Your task to perform on an android device: Open battery settings Image 0: 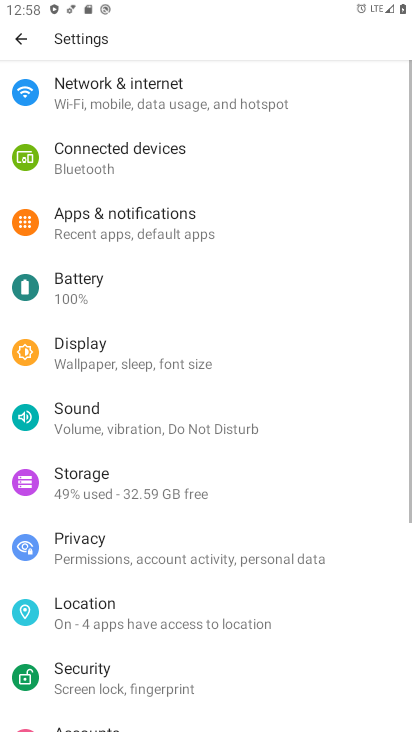
Step 0: click (74, 294)
Your task to perform on an android device: Open battery settings Image 1: 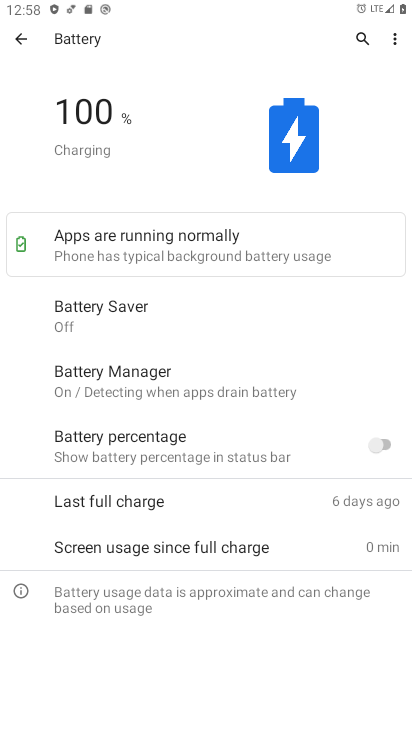
Step 1: task complete